Your task to perform on an android device: choose inbox layout in the gmail app Image 0: 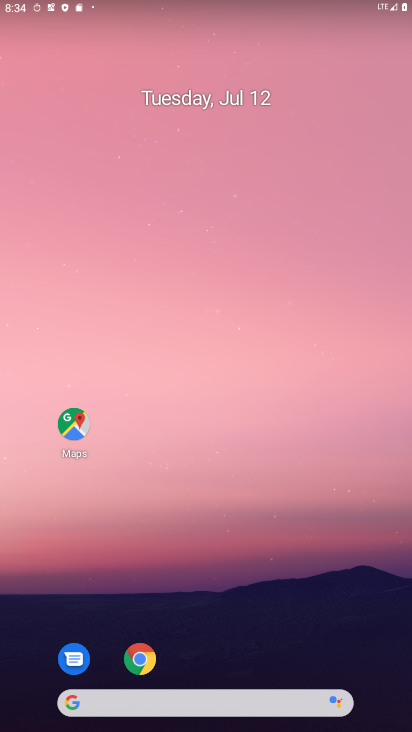
Step 0: drag from (338, 622) to (217, 78)
Your task to perform on an android device: choose inbox layout in the gmail app Image 1: 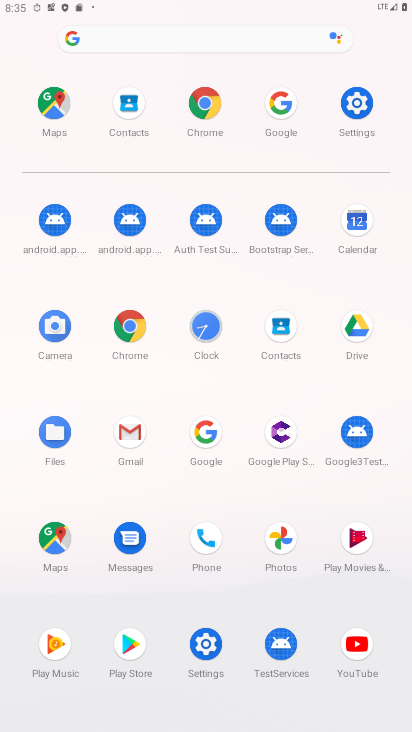
Step 1: click (131, 427)
Your task to perform on an android device: choose inbox layout in the gmail app Image 2: 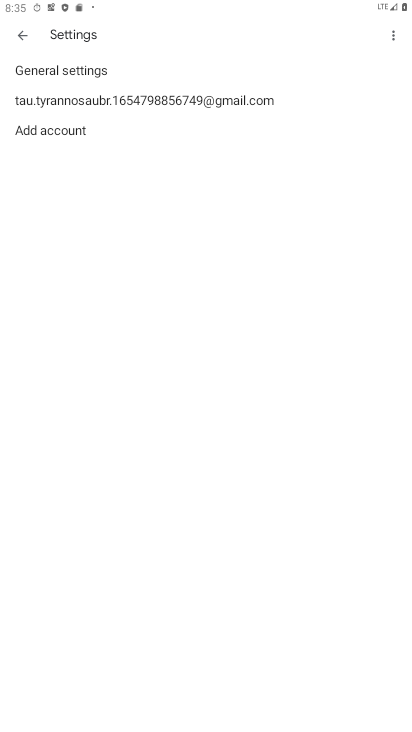
Step 2: task complete